Your task to perform on an android device: Open battery settings Image 0: 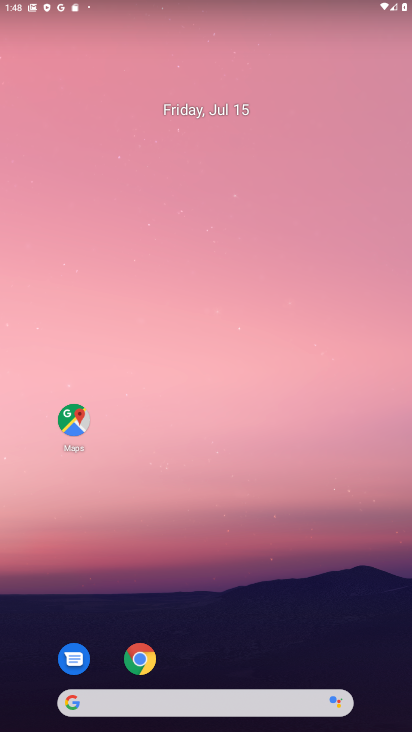
Step 0: drag from (321, 616) to (212, 120)
Your task to perform on an android device: Open battery settings Image 1: 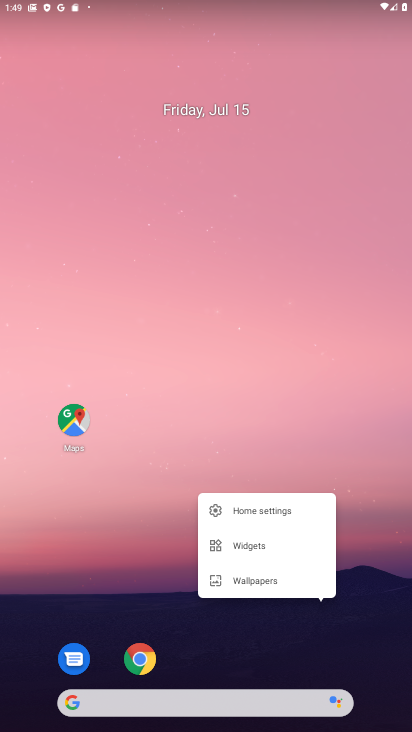
Step 1: drag from (398, 664) to (322, 147)
Your task to perform on an android device: Open battery settings Image 2: 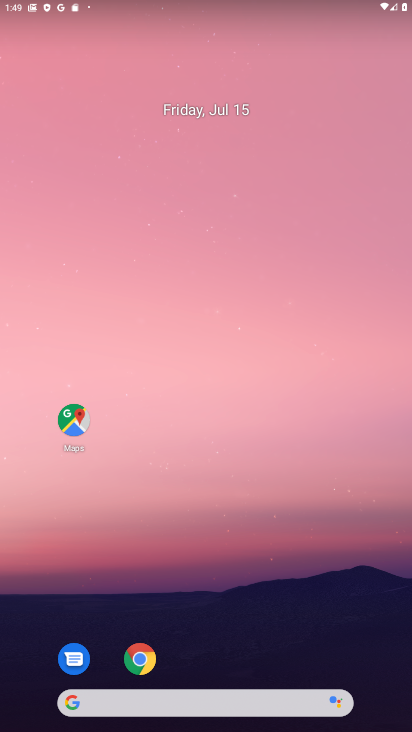
Step 2: drag from (328, 656) to (309, 9)
Your task to perform on an android device: Open battery settings Image 3: 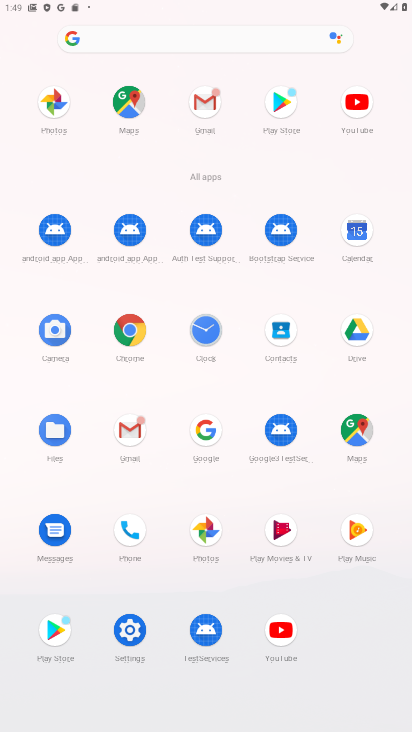
Step 3: click (140, 634)
Your task to perform on an android device: Open battery settings Image 4: 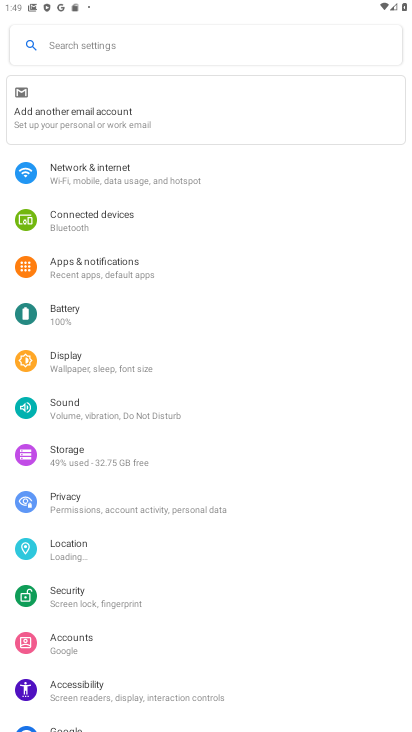
Step 4: click (99, 315)
Your task to perform on an android device: Open battery settings Image 5: 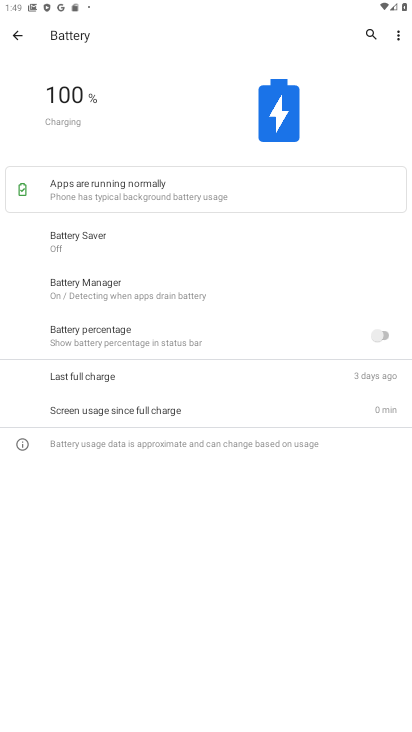
Step 5: task complete